Your task to perform on an android device: turn off airplane mode Image 0: 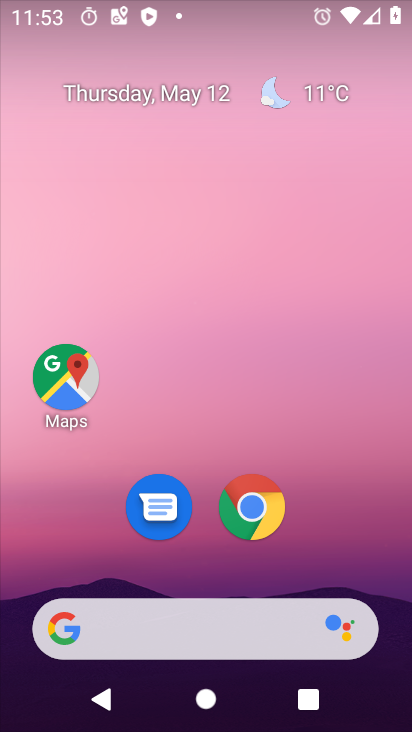
Step 0: press home button
Your task to perform on an android device: turn off airplane mode Image 1: 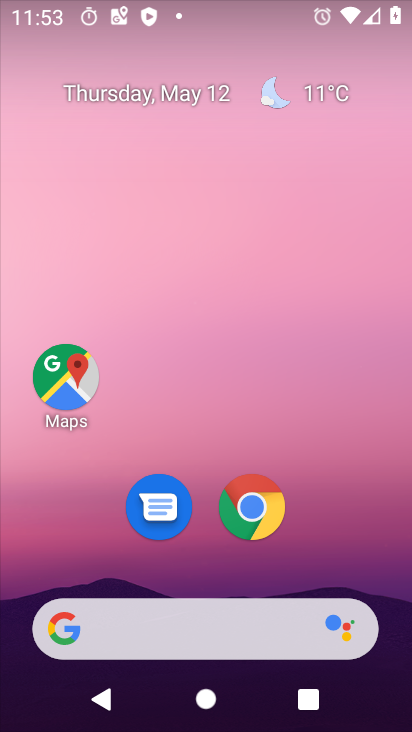
Step 1: drag from (236, 584) to (300, 32)
Your task to perform on an android device: turn off airplane mode Image 2: 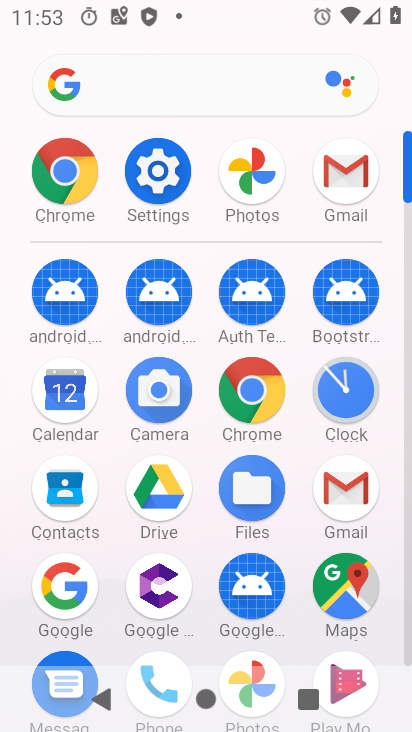
Step 2: click (143, 193)
Your task to perform on an android device: turn off airplane mode Image 3: 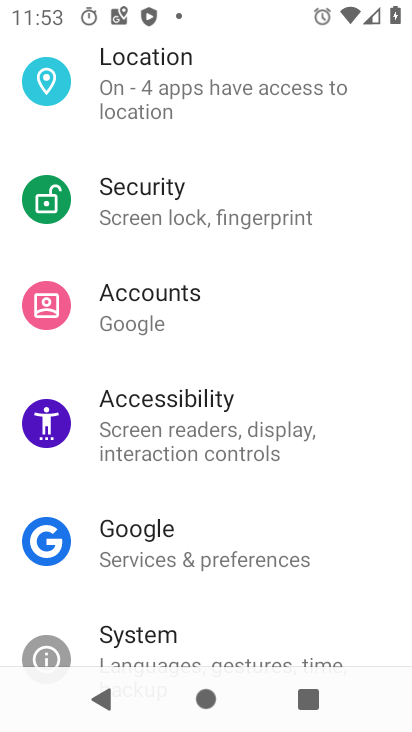
Step 3: drag from (240, 210) to (241, 629)
Your task to perform on an android device: turn off airplane mode Image 4: 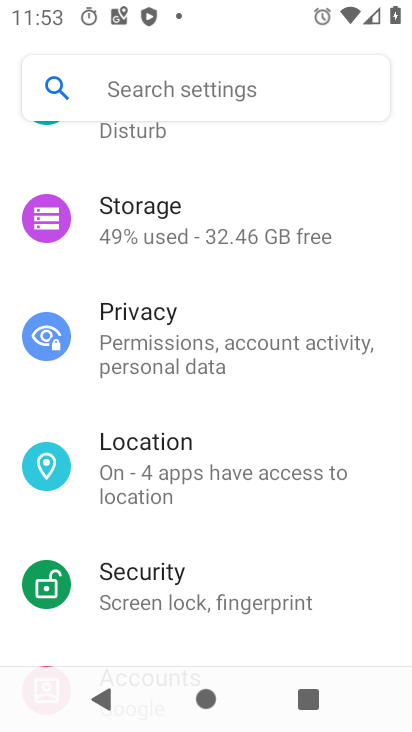
Step 4: drag from (226, 257) to (208, 675)
Your task to perform on an android device: turn off airplane mode Image 5: 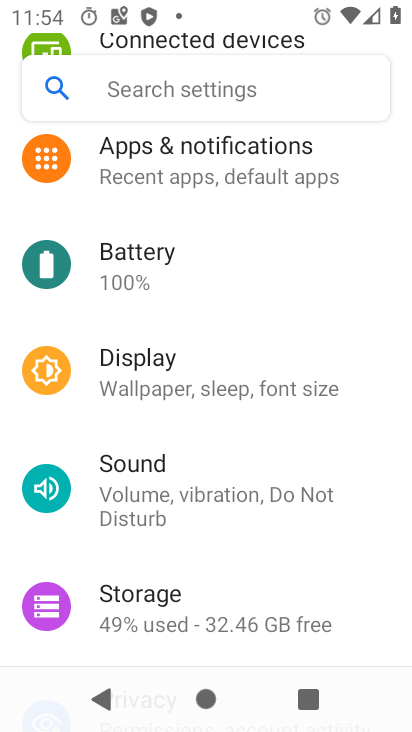
Step 5: drag from (196, 222) to (203, 665)
Your task to perform on an android device: turn off airplane mode Image 6: 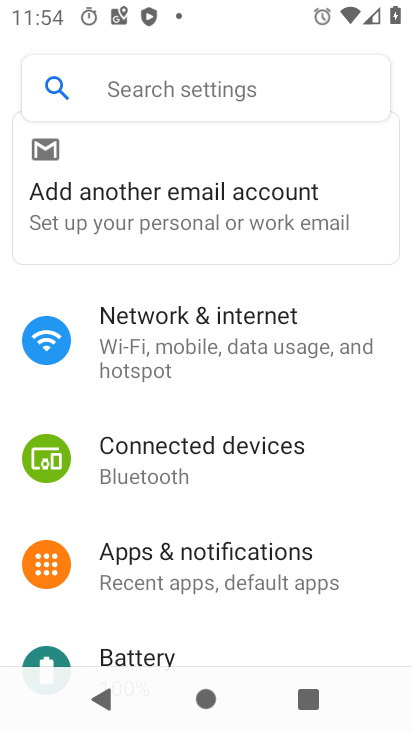
Step 6: click (200, 350)
Your task to perform on an android device: turn off airplane mode Image 7: 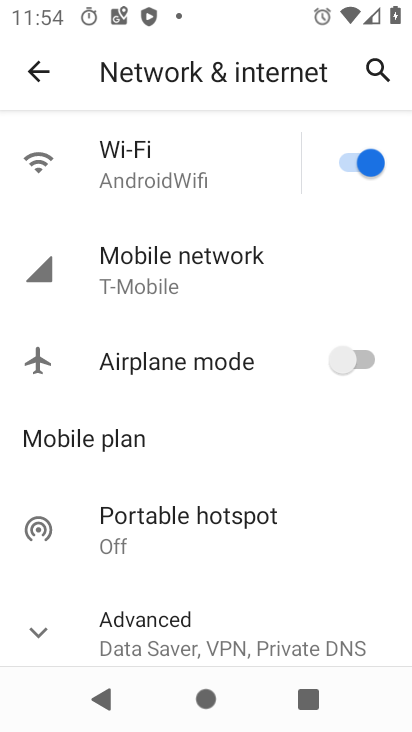
Step 7: task complete